Your task to perform on an android device: turn on improve location accuracy Image 0: 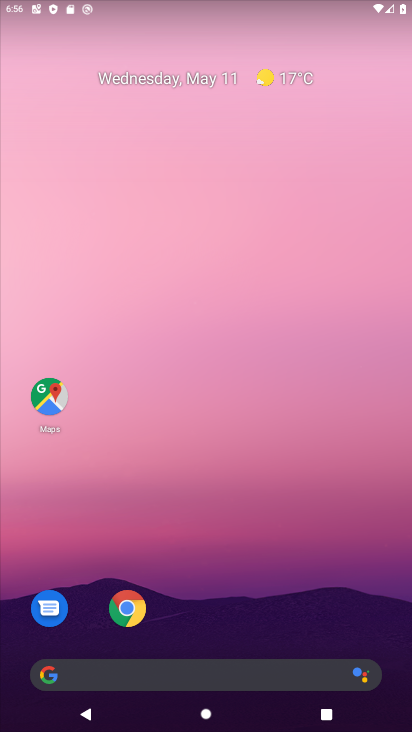
Step 0: drag from (290, 618) to (260, 39)
Your task to perform on an android device: turn on improve location accuracy Image 1: 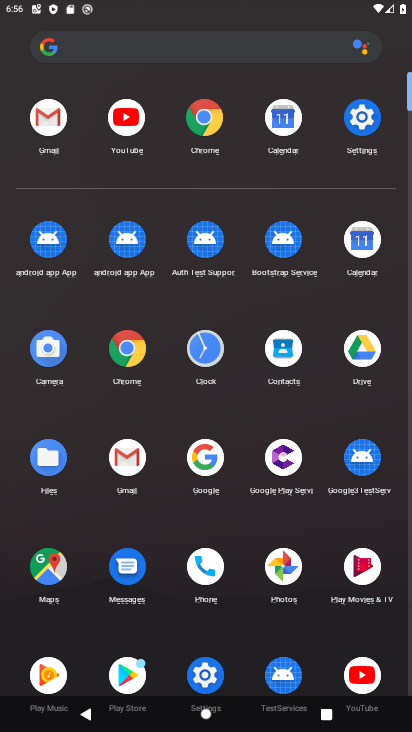
Step 1: click (374, 130)
Your task to perform on an android device: turn on improve location accuracy Image 2: 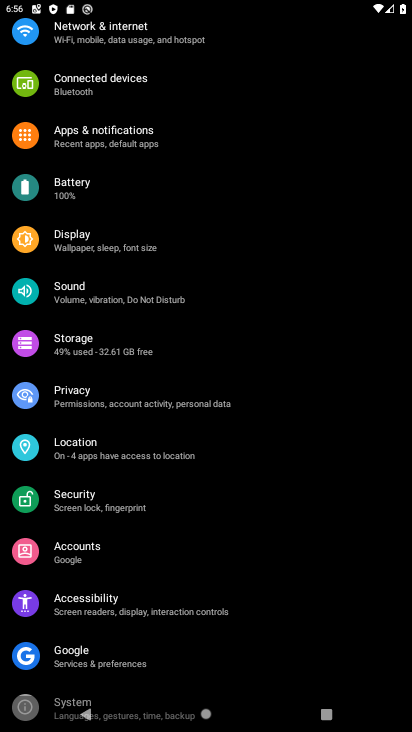
Step 2: click (125, 432)
Your task to perform on an android device: turn on improve location accuracy Image 3: 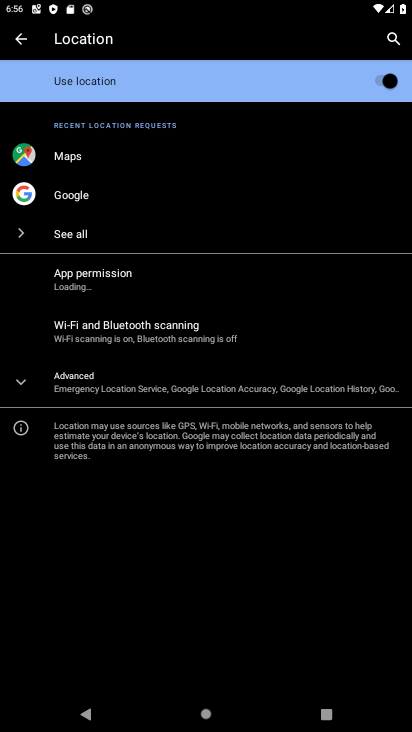
Step 3: click (141, 395)
Your task to perform on an android device: turn on improve location accuracy Image 4: 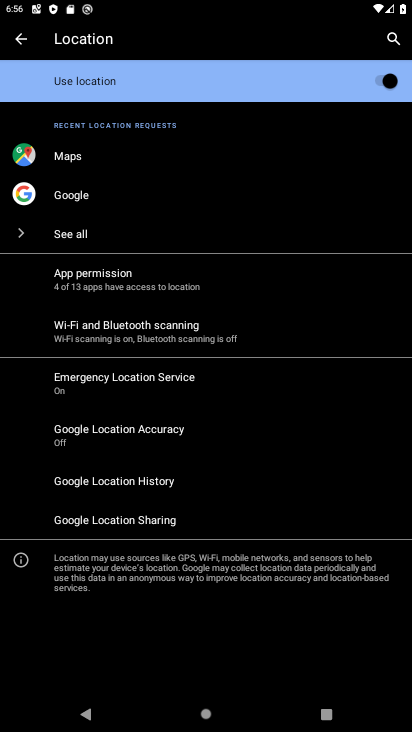
Step 4: click (148, 441)
Your task to perform on an android device: turn on improve location accuracy Image 5: 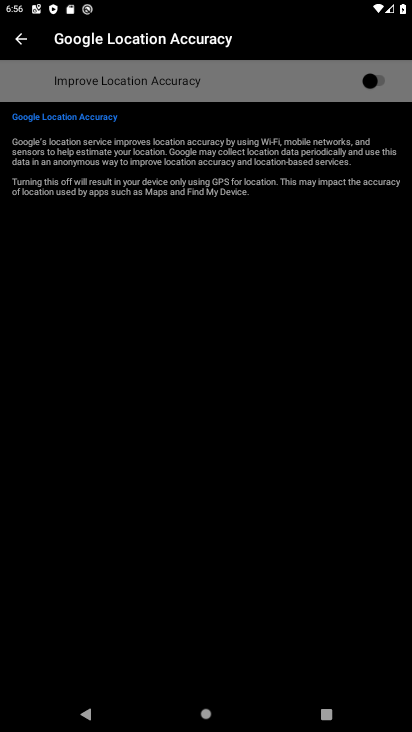
Step 5: click (377, 86)
Your task to perform on an android device: turn on improve location accuracy Image 6: 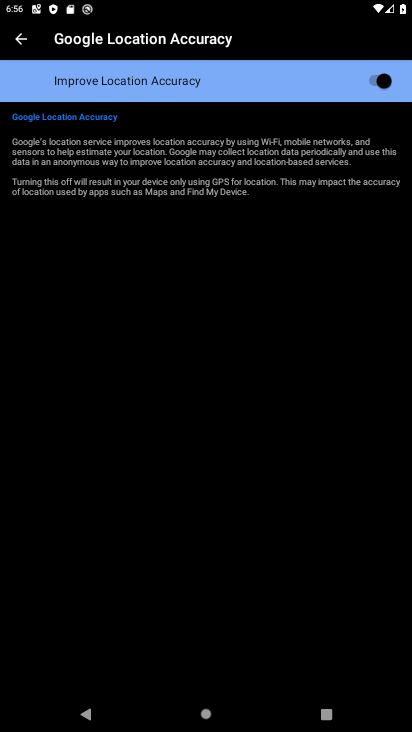
Step 6: task complete